Your task to perform on an android device: clear history in the chrome app Image 0: 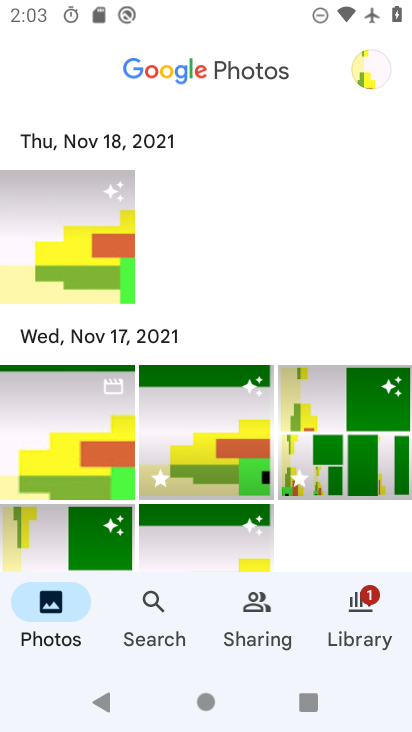
Step 0: press home button
Your task to perform on an android device: clear history in the chrome app Image 1: 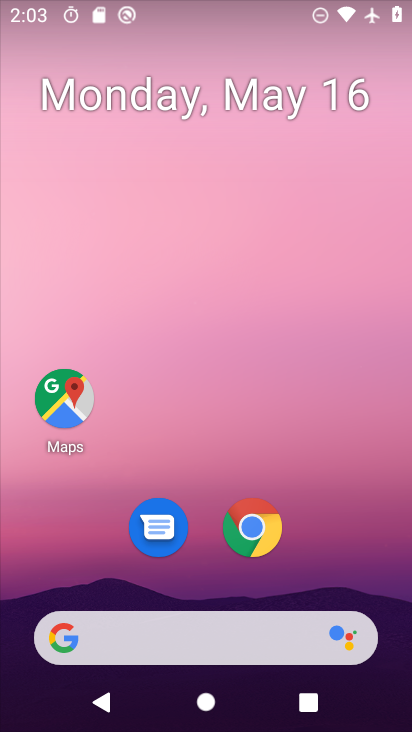
Step 1: drag from (157, 634) to (242, 264)
Your task to perform on an android device: clear history in the chrome app Image 2: 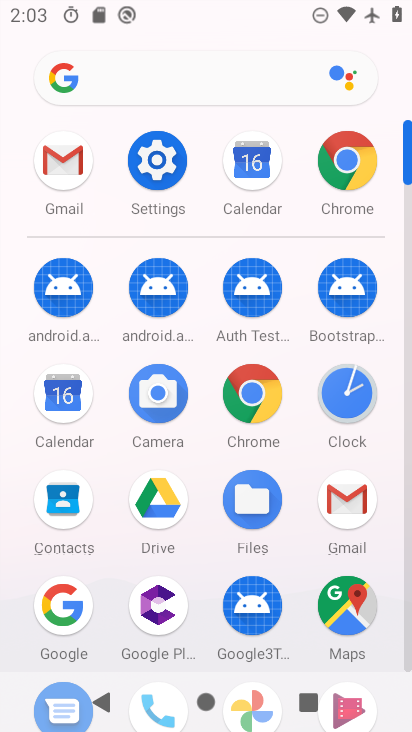
Step 2: click (345, 169)
Your task to perform on an android device: clear history in the chrome app Image 3: 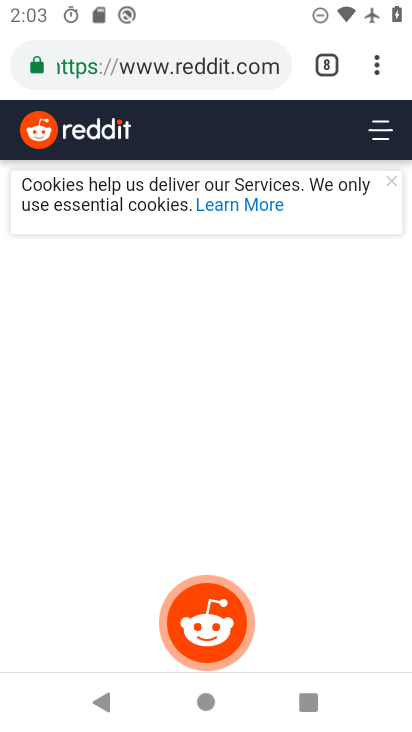
Step 3: drag from (372, 69) to (172, 366)
Your task to perform on an android device: clear history in the chrome app Image 4: 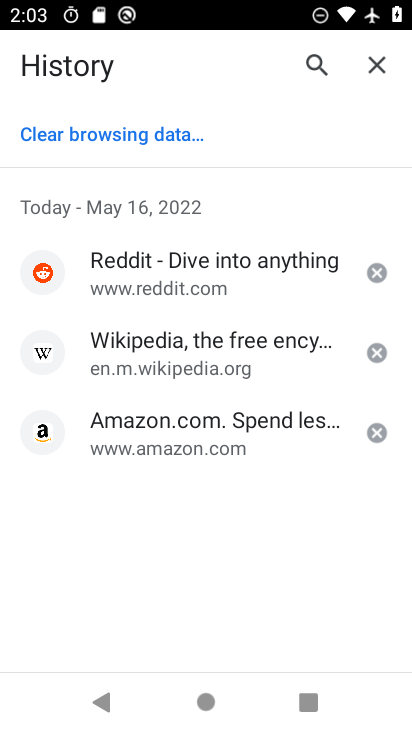
Step 4: click (131, 130)
Your task to perform on an android device: clear history in the chrome app Image 5: 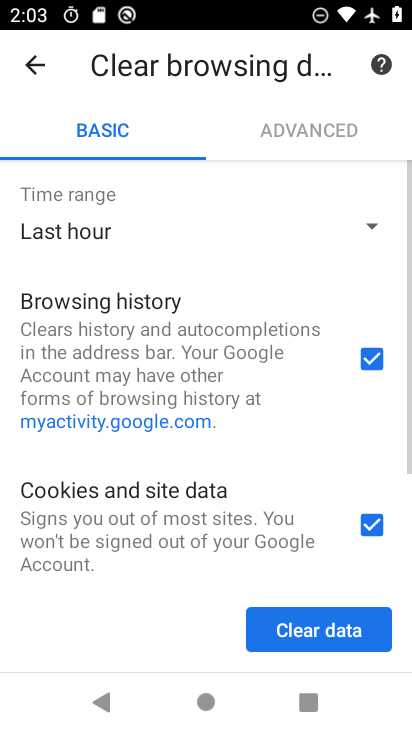
Step 5: drag from (267, 534) to (370, 196)
Your task to perform on an android device: clear history in the chrome app Image 6: 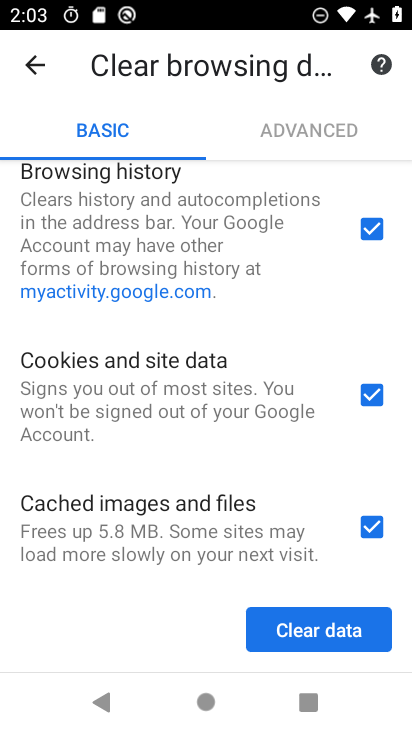
Step 6: click (313, 627)
Your task to perform on an android device: clear history in the chrome app Image 7: 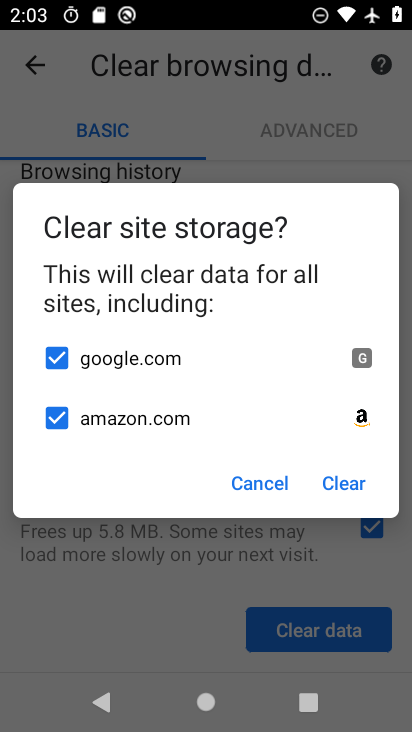
Step 7: click (339, 477)
Your task to perform on an android device: clear history in the chrome app Image 8: 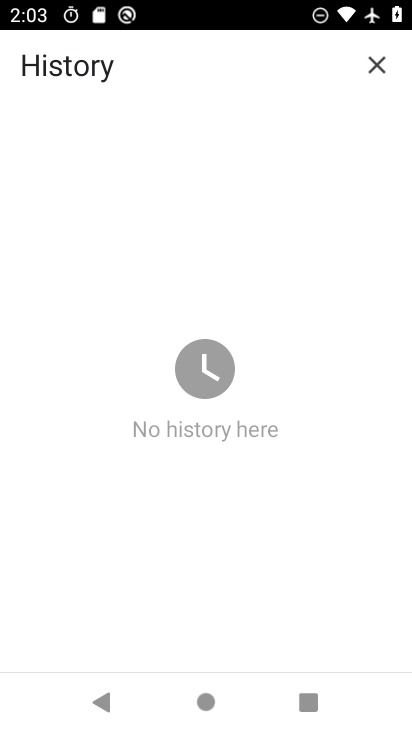
Step 8: task complete